Your task to perform on an android device: install app "Microsoft Excel" Image 0: 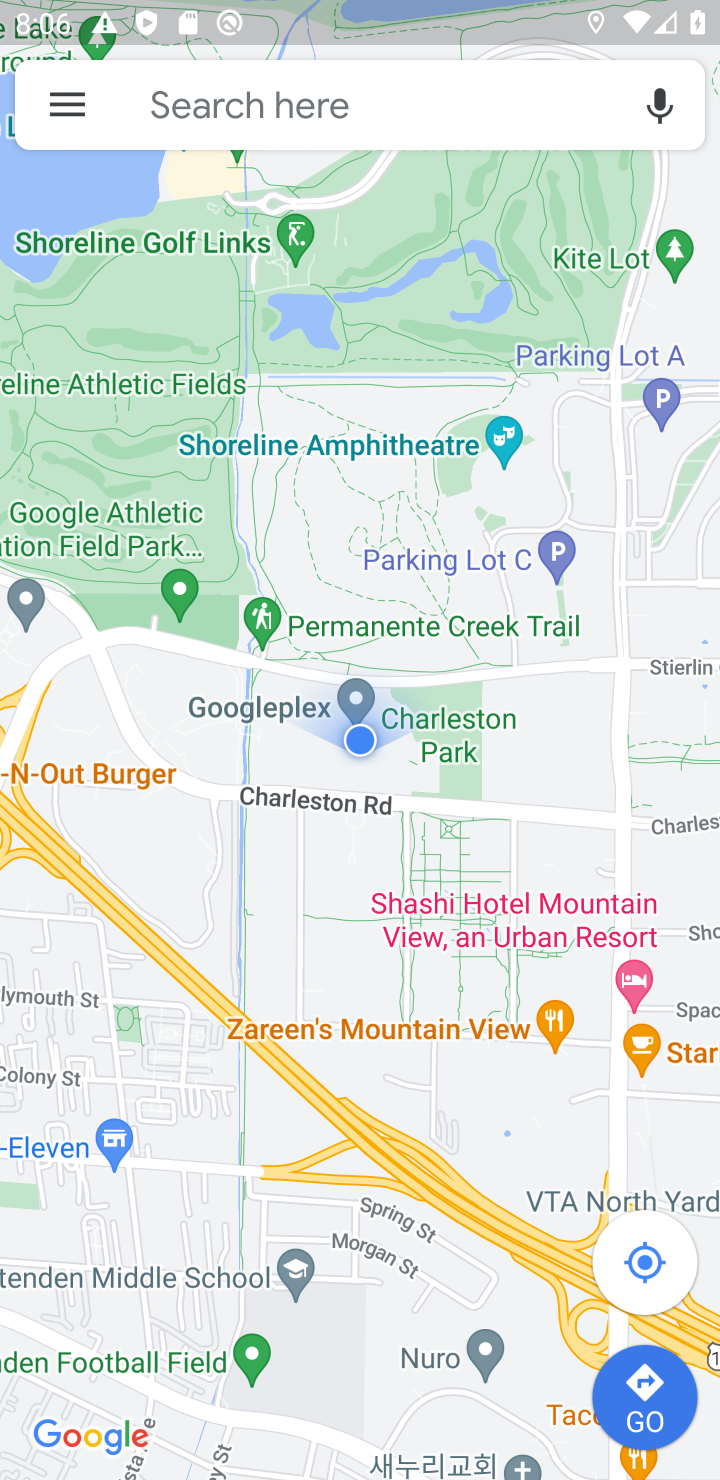
Step 0: press home button
Your task to perform on an android device: install app "Microsoft Excel" Image 1: 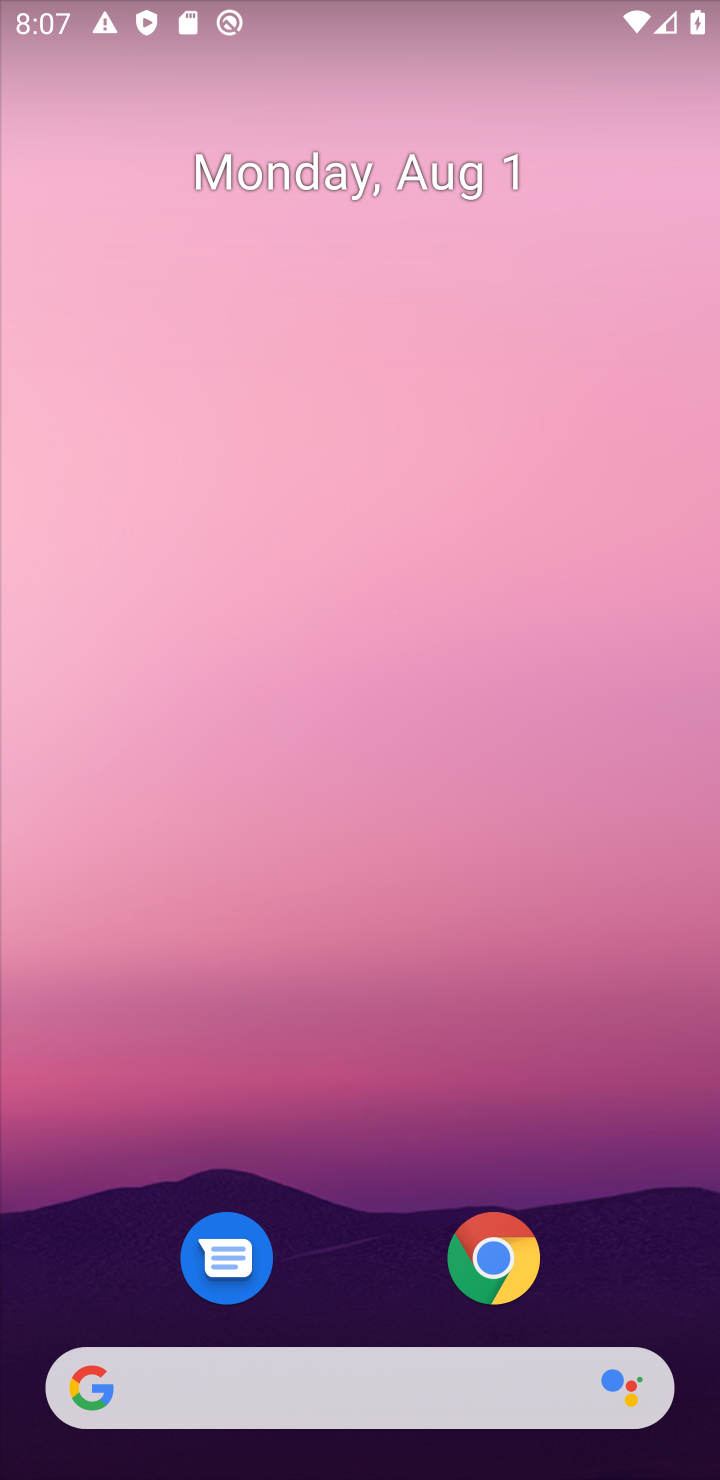
Step 1: drag from (717, 572) to (709, 293)
Your task to perform on an android device: install app "Microsoft Excel" Image 2: 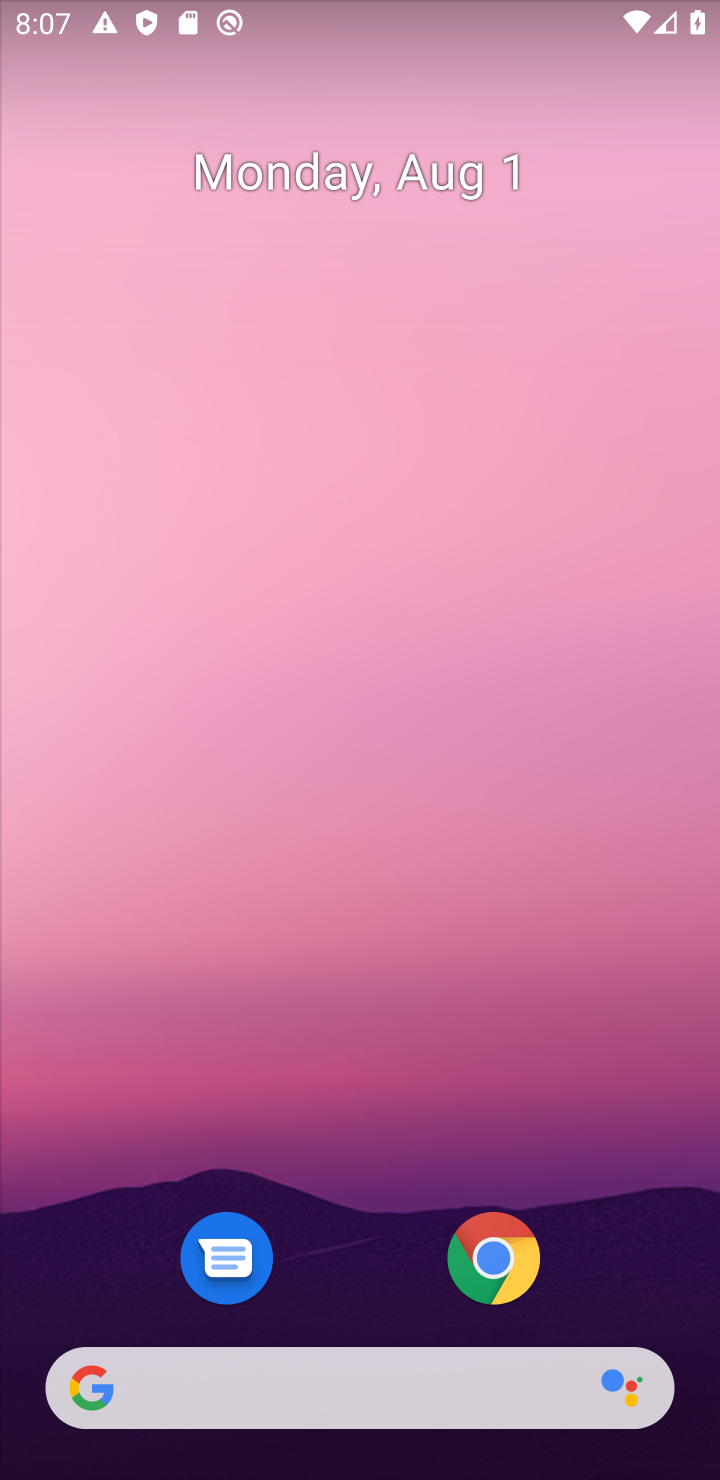
Step 2: drag from (340, 979) to (477, 78)
Your task to perform on an android device: install app "Microsoft Excel" Image 3: 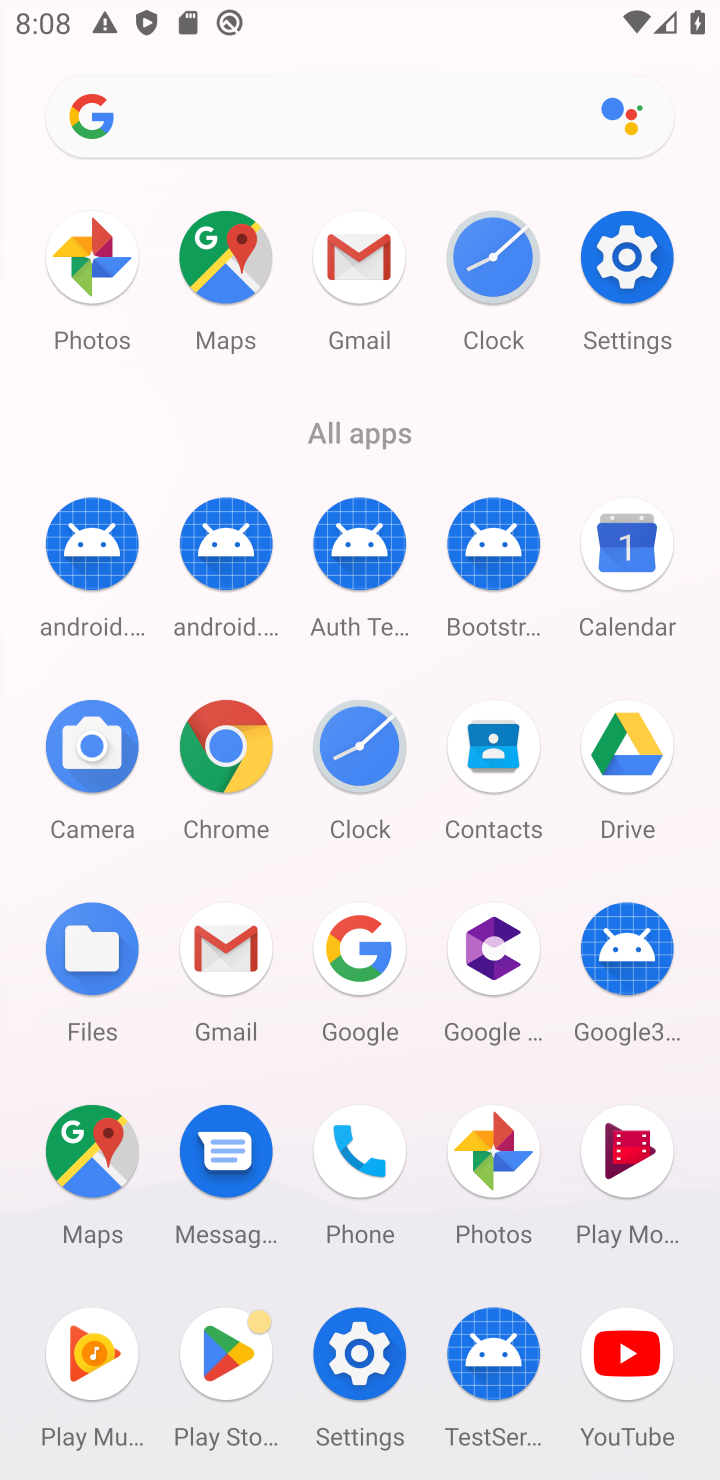
Step 3: click (212, 1356)
Your task to perform on an android device: install app "Microsoft Excel" Image 4: 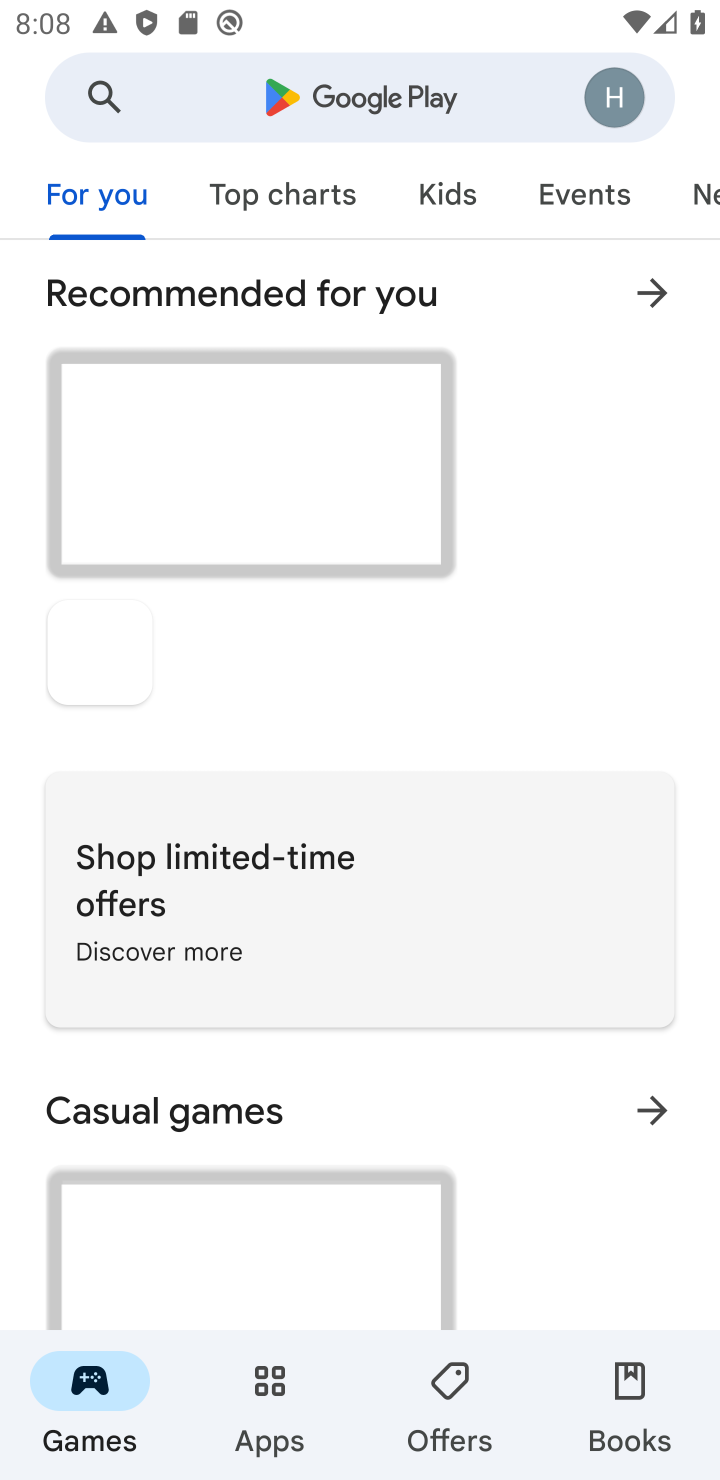
Step 4: click (207, 107)
Your task to perform on an android device: install app "Microsoft Excel" Image 5: 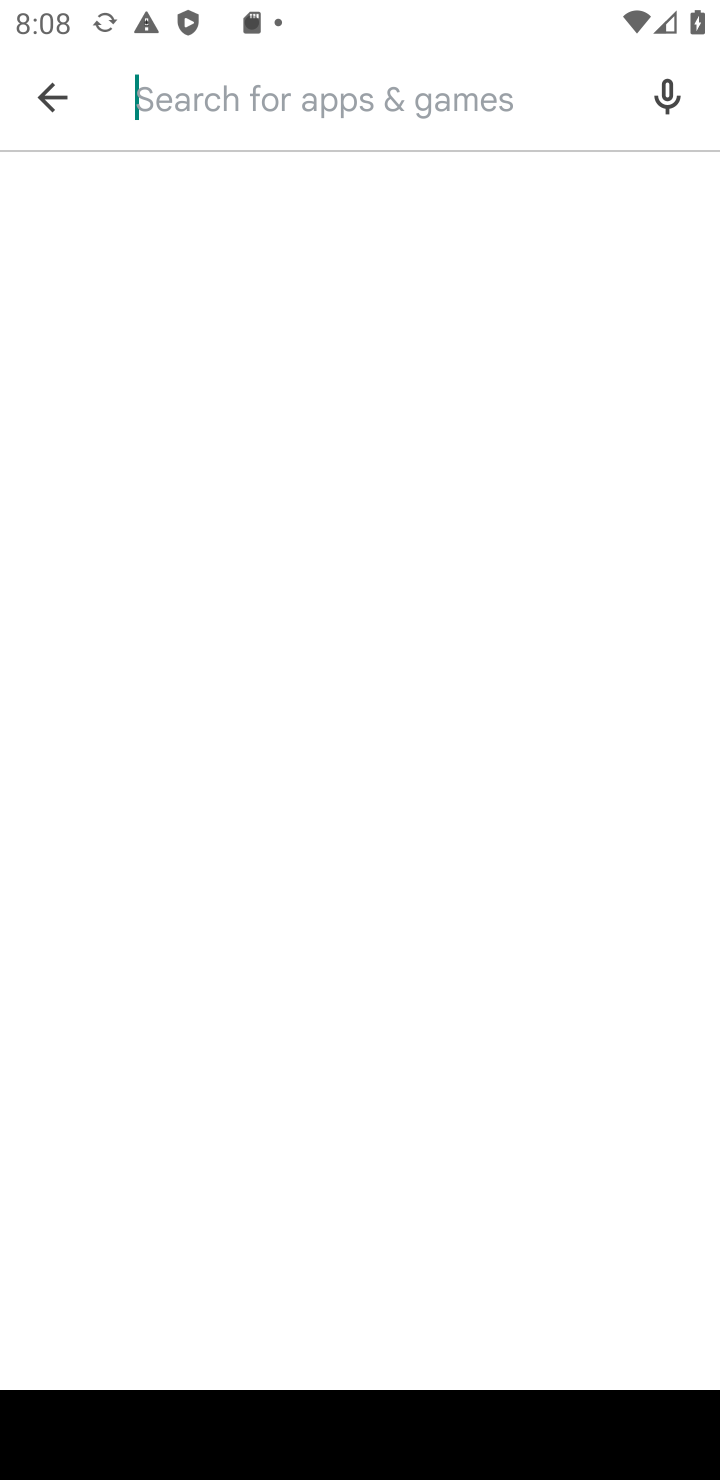
Step 5: type "Microsoft Excel""
Your task to perform on an android device: install app "Microsoft Excel" Image 6: 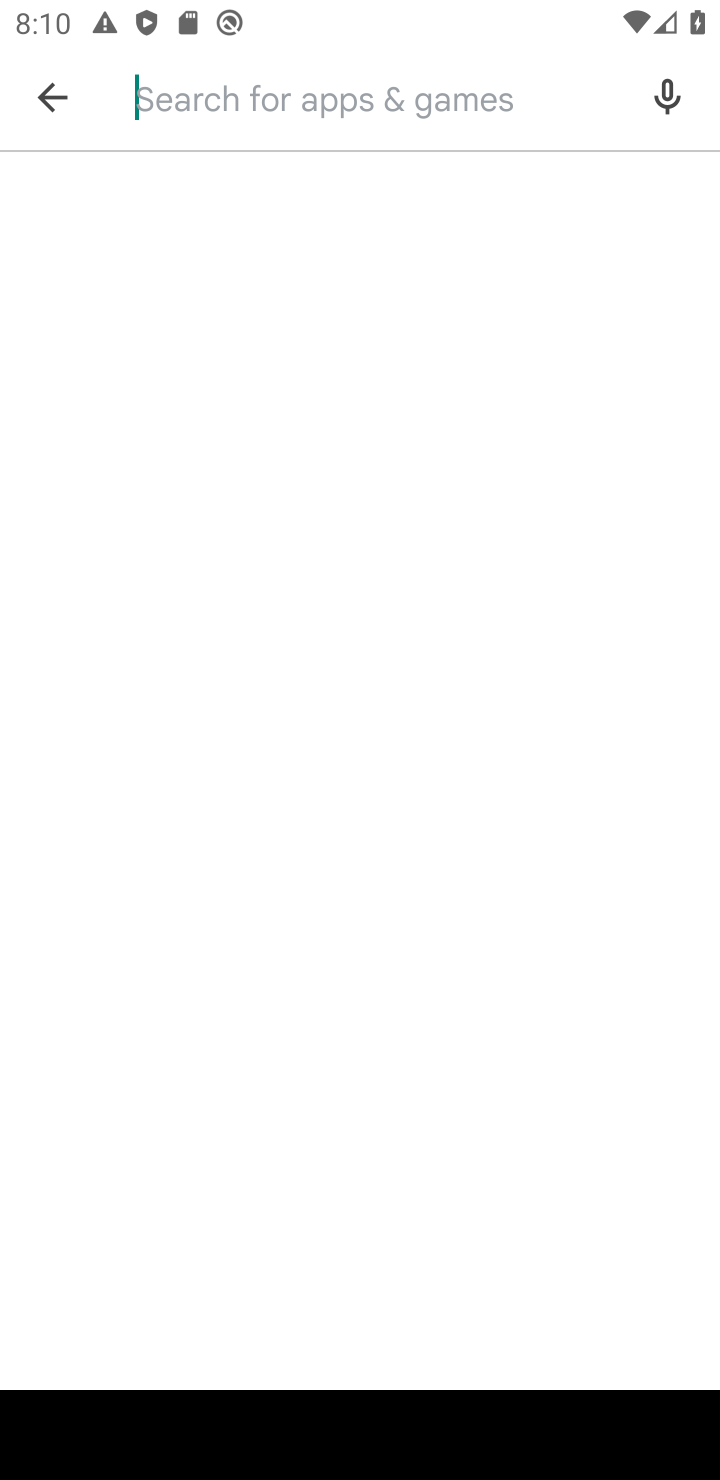
Step 6: type "Mivrosoft excel"
Your task to perform on an android device: install app "Microsoft Excel" Image 7: 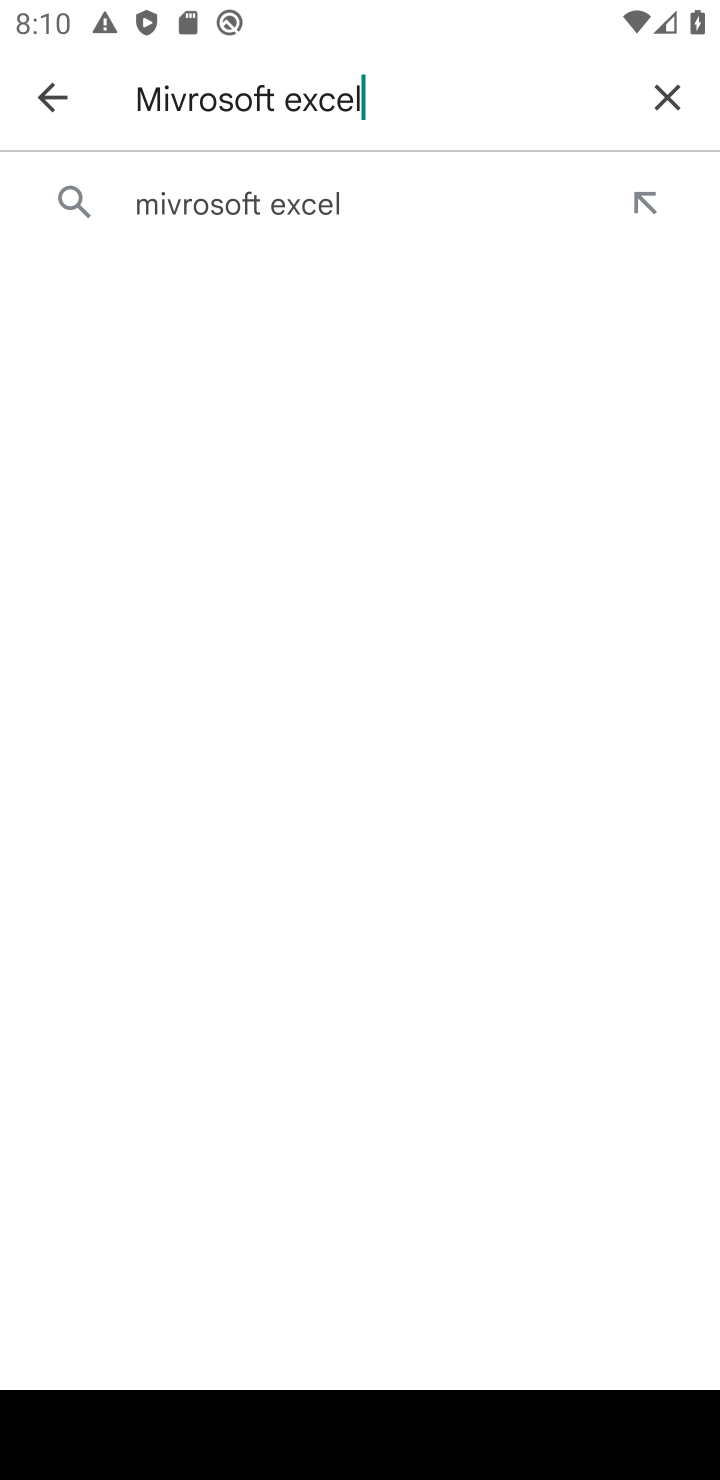
Step 7: click (234, 196)
Your task to perform on an android device: install app "Microsoft Excel" Image 8: 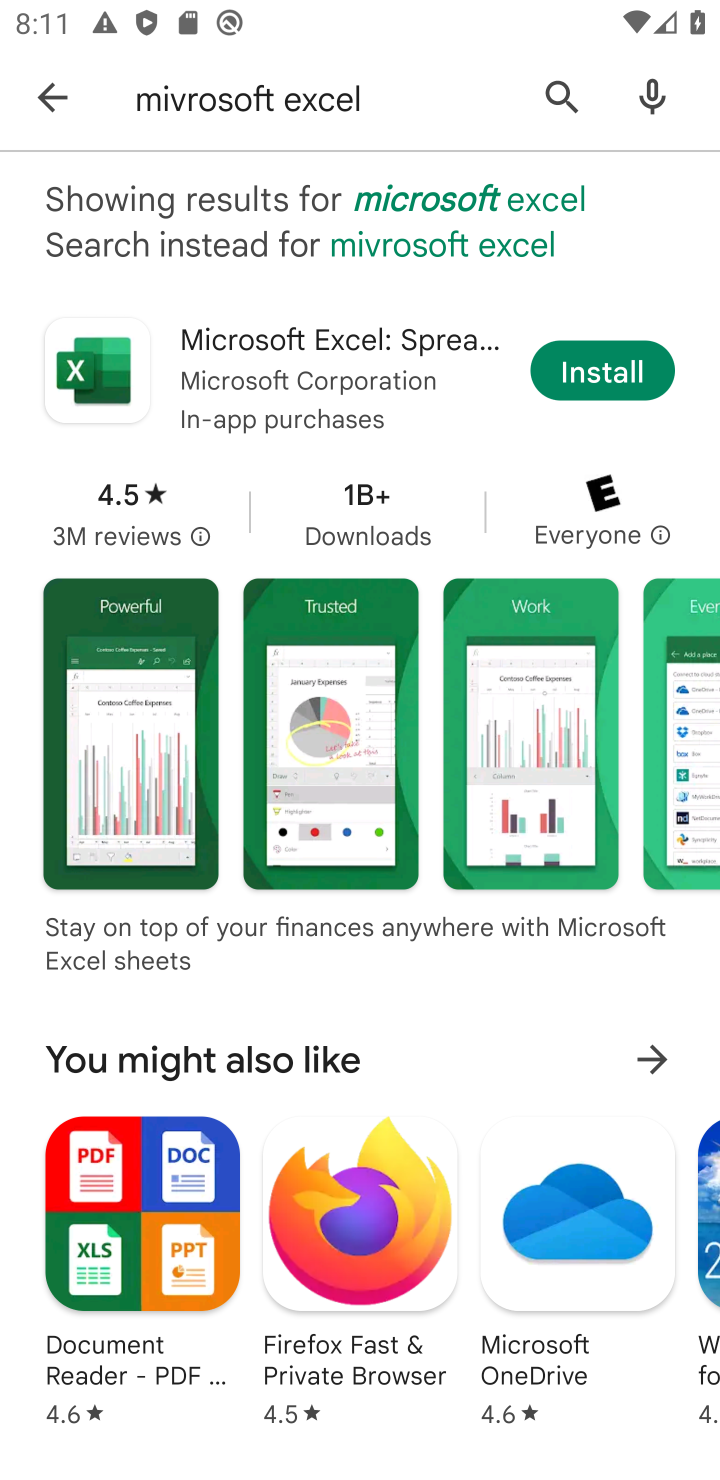
Step 8: click (579, 357)
Your task to perform on an android device: install app "Microsoft Excel" Image 9: 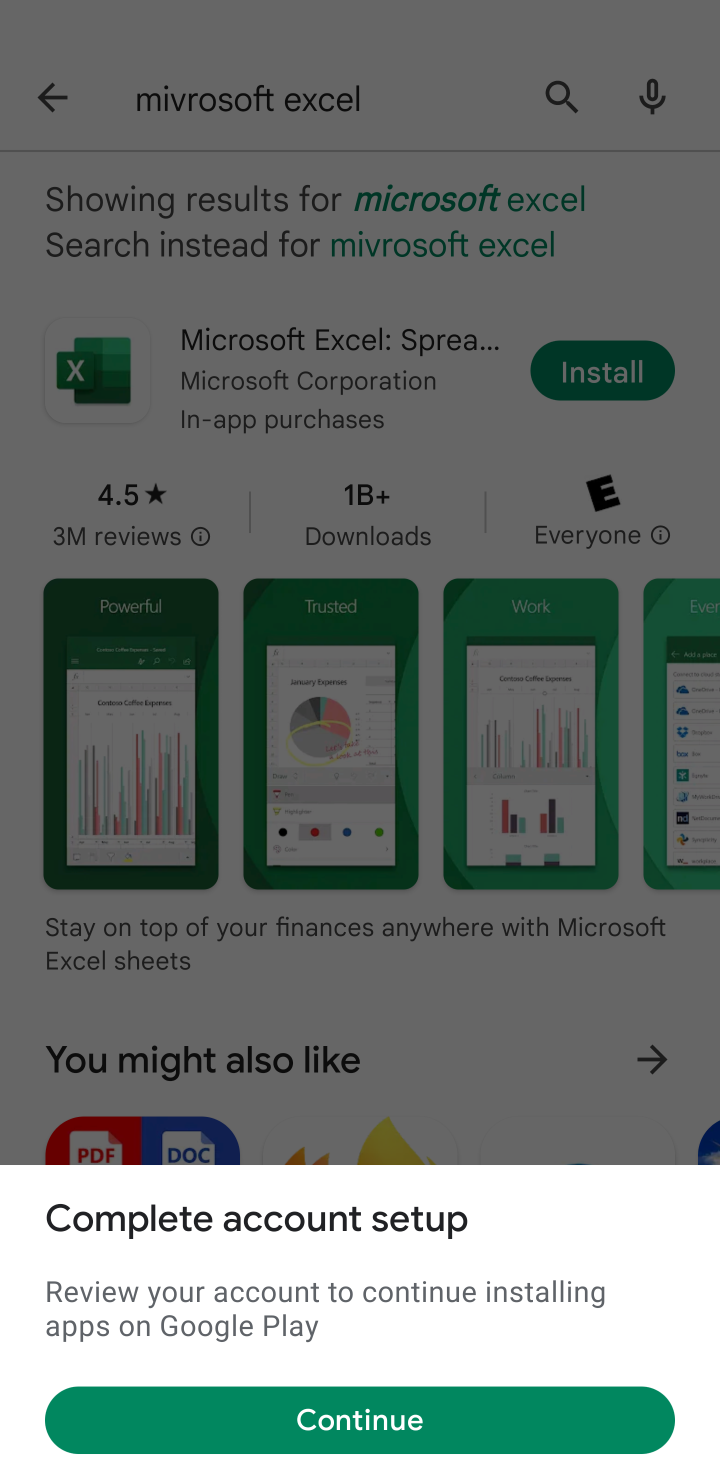
Step 9: task complete